Your task to perform on an android device: Open Google Maps and go to "Timeline" Image 0: 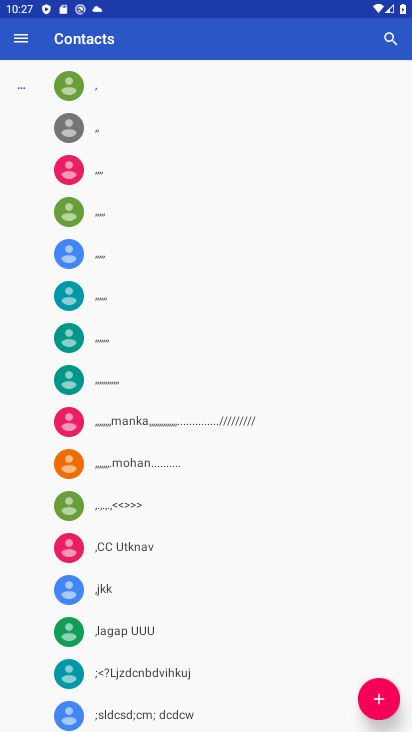
Step 0: press home button
Your task to perform on an android device: Open Google Maps and go to "Timeline" Image 1: 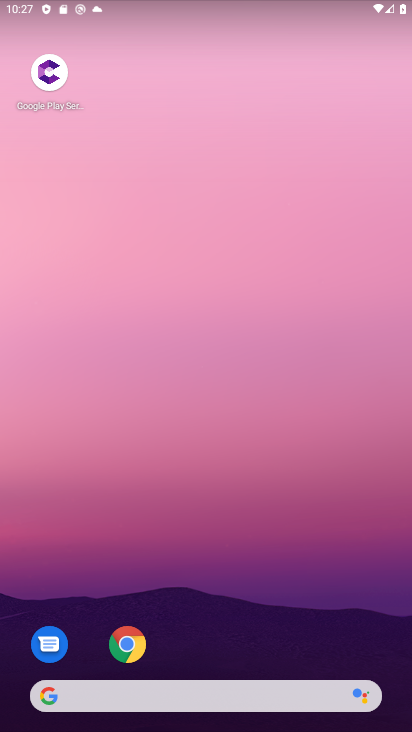
Step 1: drag from (216, 454) to (223, 375)
Your task to perform on an android device: Open Google Maps and go to "Timeline" Image 2: 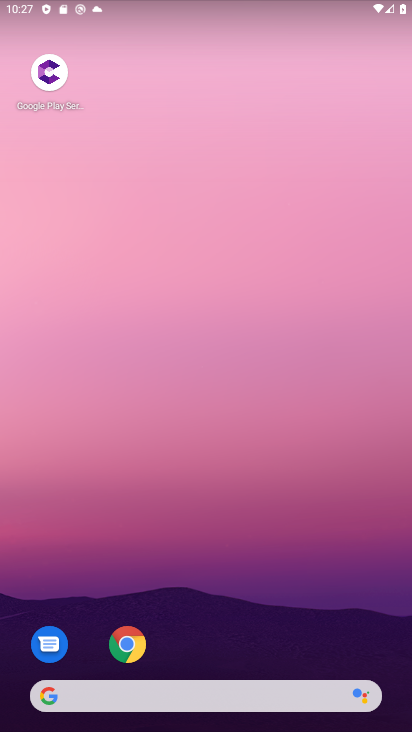
Step 2: click (229, 168)
Your task to perform on an android device: Open Google Maps and go to "Timeline" Image 3: 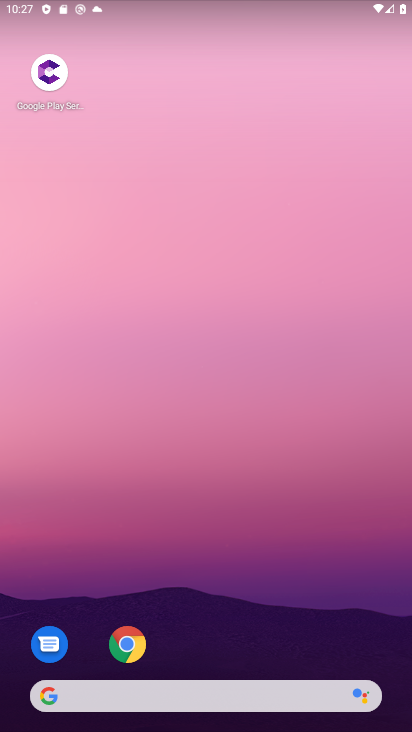
Step 3: drag from (192, 642) to (195, 184)
Your task to perform on an android device: Open Google Maps and go to "Timeline" Image 4: 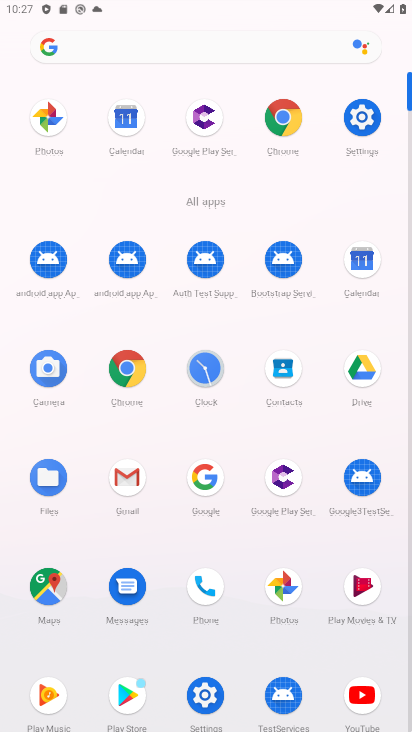
Step 4: click (42, 580)
Your task to perform on an android device: Open Google Maps and go to "Timeline" Image 5: 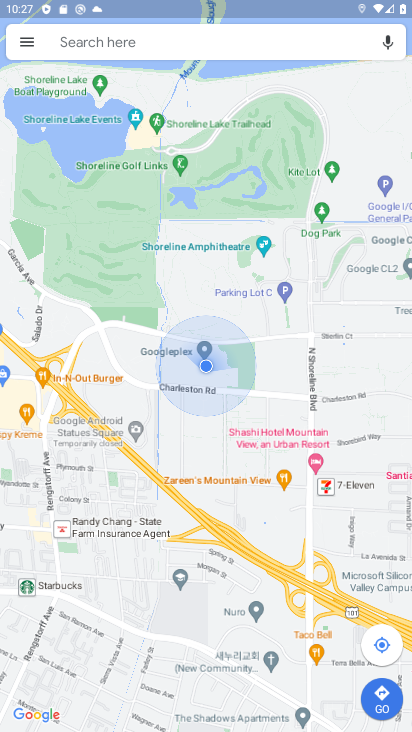
Step 5: click (18, 35)
Your task to perform on an android device: Open Google Maps and go to "Timeline" Image 6: 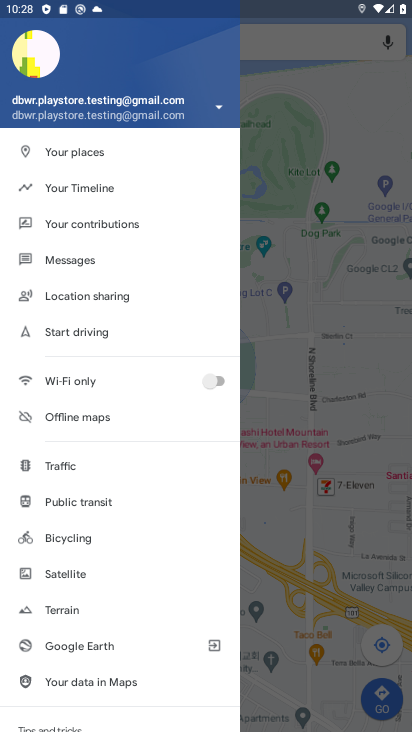
Step 6: click (84, 185)
Your task to perform on an android device: Open Google Maps and go to "Timeline" Image 7: 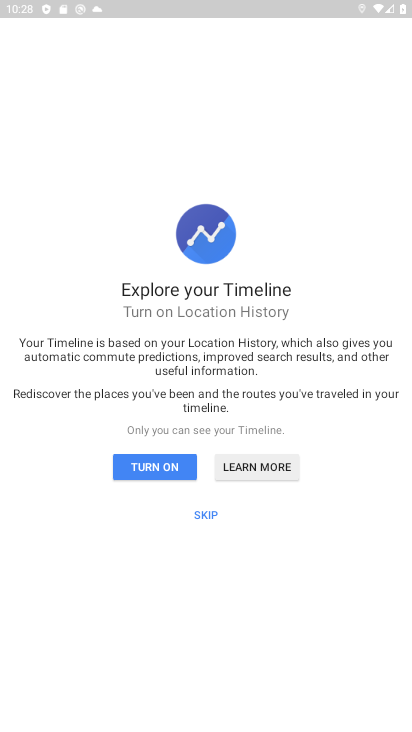
Step 7: click (143, 466)
Your task to perform on an android device: Open Google Maps and go to "Timeline" Image 8: 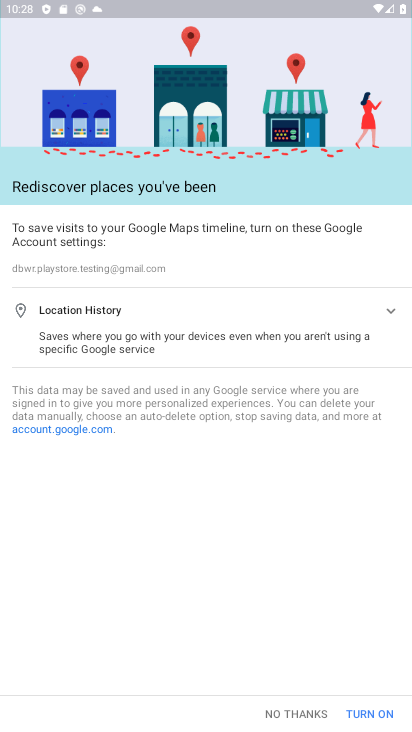
Step 8: click (367, 708)
Your task to perform on an android device: Open Google Maps and go to "Timeline" Image 9: 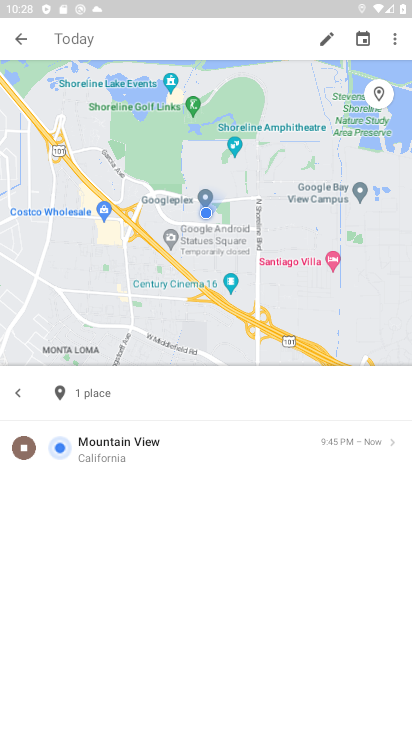
Step 9: task complete